Your task to perform on an android device: open app "WhatsApp Messenger" (install if not already installed) and enter user name: "cartons@outlook.com" and password: "approximated" Image 0: 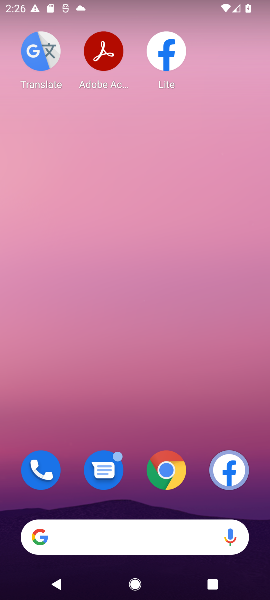
Step 0: drag from (113, 503) to (128, 251)
Your task to perform on an android device: open app "WhatsApp Messenger" (install if not already installed) and enter user name: "cartons@outlook.com" and password: "approximated" Image 1: 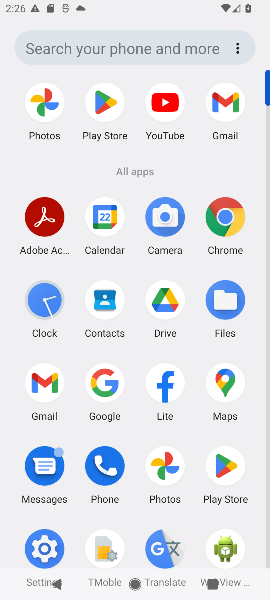
Step 1: click (93, 106)
Your task to perform on an android device: open app "WhatsApp Messenger" (install if not already installed) and enter user name: "cartons@outlook.com" and password: "approximated" Image 2: 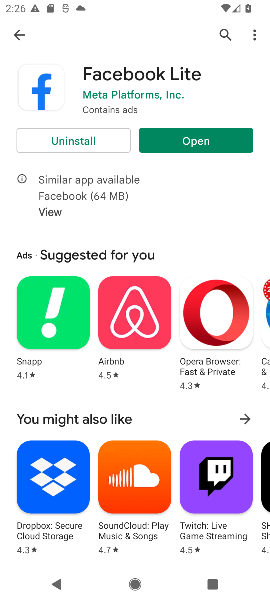
Step 2: click (13, 41)
Your task to perform on an android device: open app "WhatsApp Messenger" (install if not already installed) and enter user name: "cartons@outlook.com" and password: "approximated" Image 3: 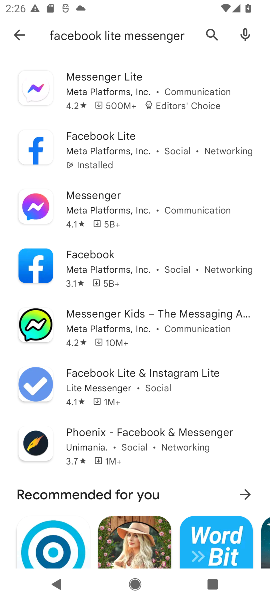
Step 3: click (18, 30)
Your task to perform on an android device: open app "WhatsApp Messenger" (install if not already installed) and enter user name: "cartons@outlook.com" and password: "approximated" Image 4: 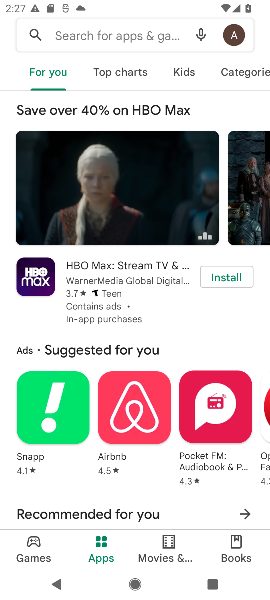
Step 4: click (78, 32)
Your task to perform on an android device: open app "WhatsApp Messenger" (install if not already installed) and enter user name: "cartons@outlook.com" and password: "approximated" Image 5: 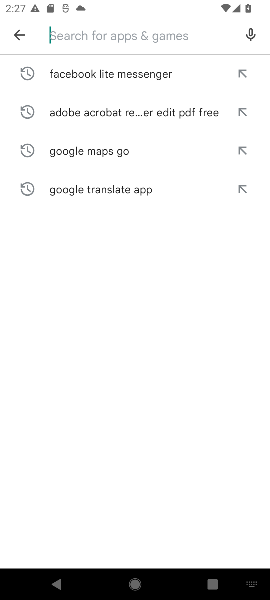
Step 5: type "WhatsApp Messenger "
Your task to perform on an android device: open app "WhatsApp Messenger" (install if not already installed) and enter user name: "cartons@outlook.com" and password: "approximated" Image 6: 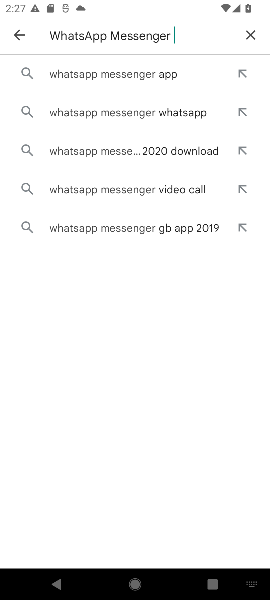
Step 6: click (127, 66)
Your task to perform on an android device: open app "WhatsApp Messenger" (install if not already installed) and enter user name: "cartons@outlook.com" and password: "approximated" Image 7: 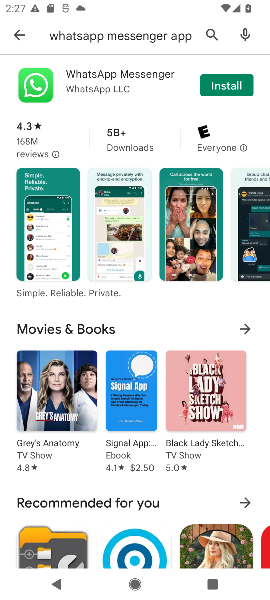
Step 7: click (234, 79)
Your task to perform on an android device: open app "WhatsApp Messenger" (install if not already installed) and enter user name: "cartons@outlook.com" and password: "approximated" Image 8: 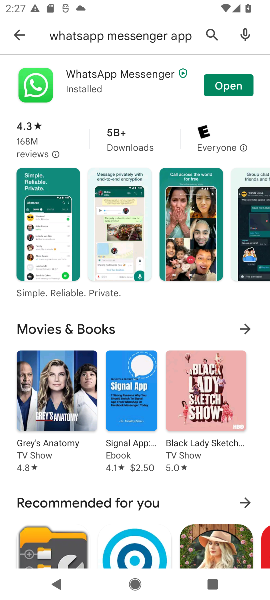
Step 8: click (234, 81)
Your task to perform on an android device: open app "WhatsApp Messenger" (install if not already installed) and enter user name: "cartons@outlook.com" and password: "approximated" Image 9: 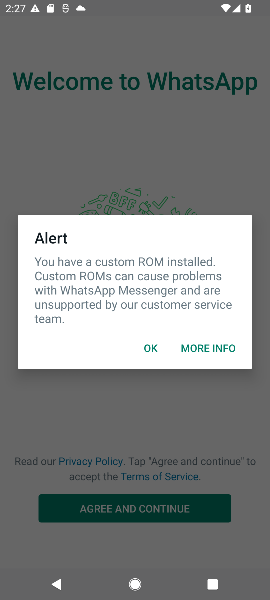
Step 9: click (148, 344)
Your task to perform on an android device: open app "WhatsApp Messenger" (install if not already installed) and enter user name: "cartons@outlook.com" and password: "approximated" Image 10: 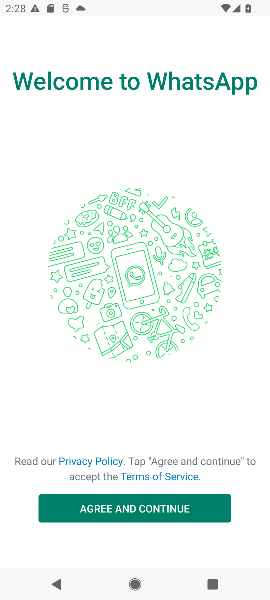
Step 10: task complete